Your task to perform on an android device: Open Google Maps Image 0: 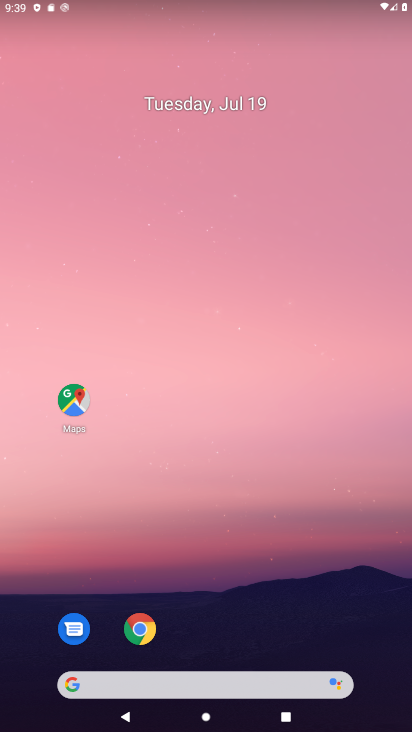
Step 0: click (81, 399)
Your task to perform on an android device: Open Google Maps Image 1: 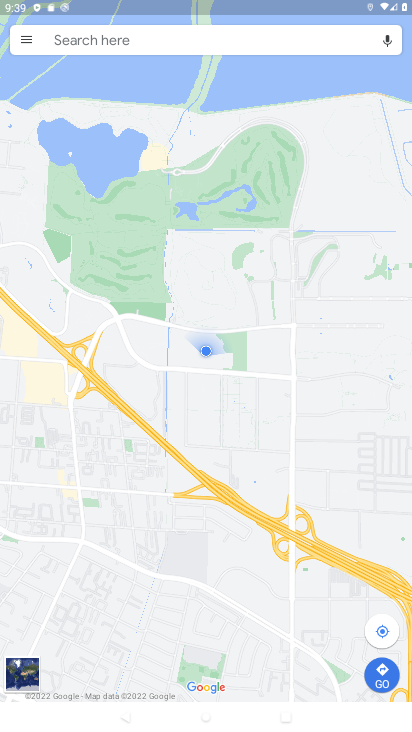
Step 1: task complete